Your task to perform on an android device: Search for sushi restaurants on Maps Image 0: 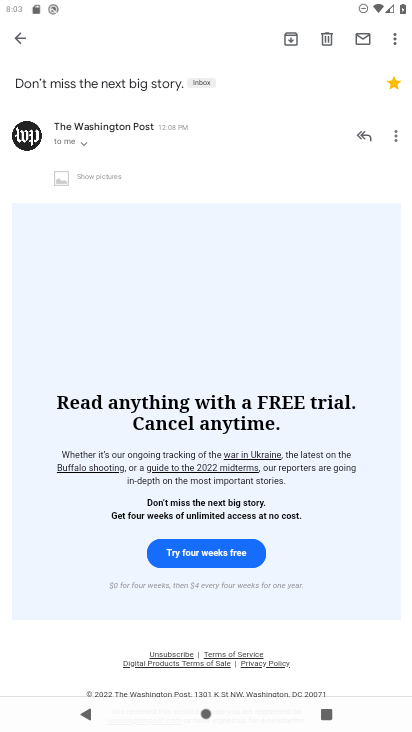
Step 0: press home button
Your task to perform on an android device: Search for sushi restaurants on Maps Image 1: 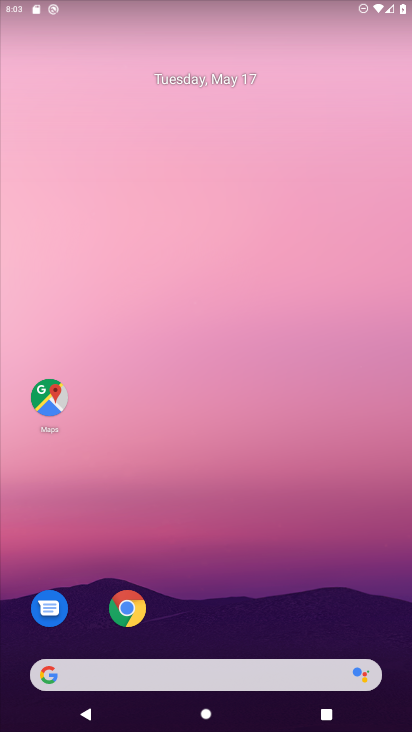
Step 1: click (53, 392)
Your task to perform on an android device: Search for sushi restaurants on Maps Image 2: 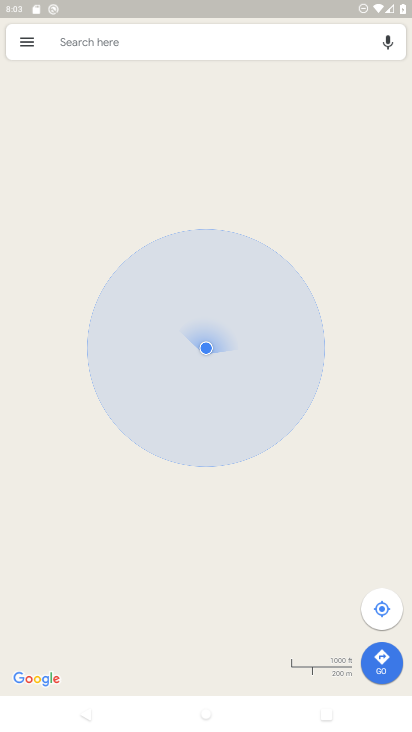
Step 2: click (151, 37)
Your task to perform on an android device: Search for sushi restaurants on Maps Image 3: 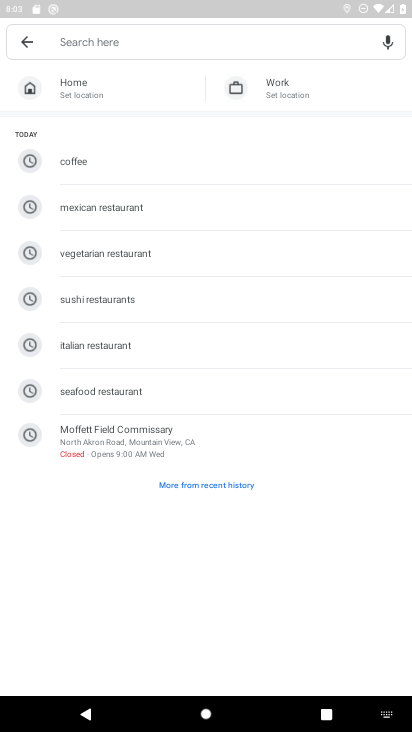
Step 3: type "sushi restaurants"
Your task to perform on an android device: Search for sushi restaurants on Maps Image 4: 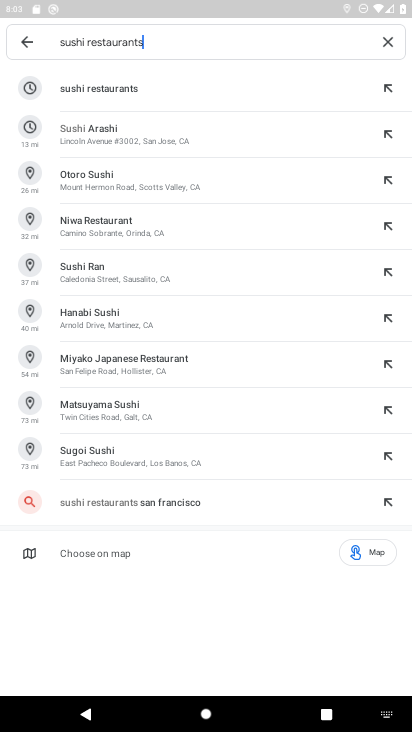
Step 4: click (163, 96)
Your task to perform on an android device: Search for sushi restaurants on Maps Image 5: 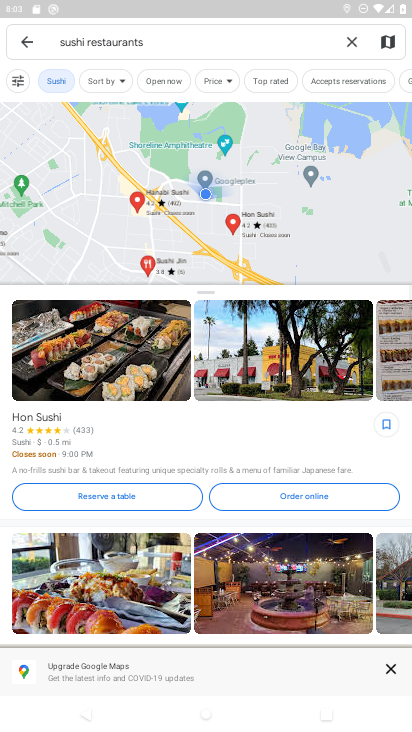
Step 5: task complete